Your task to perform on an android device: add a label to a message in the gmail app Image 0: 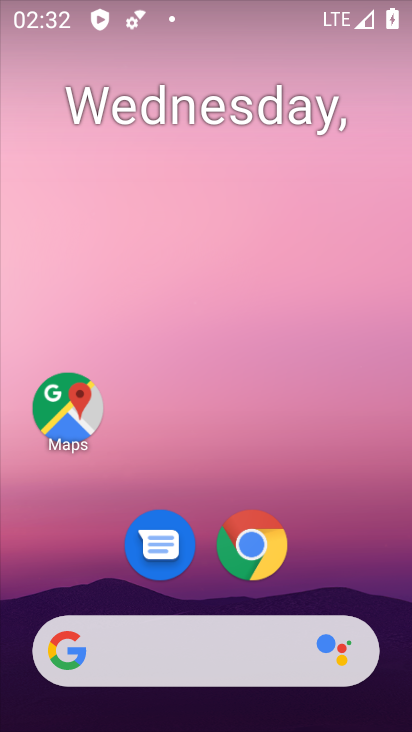
Step 0: press home button
Your task to perform on an android device: add a label to a message in the gmail app Image 1: 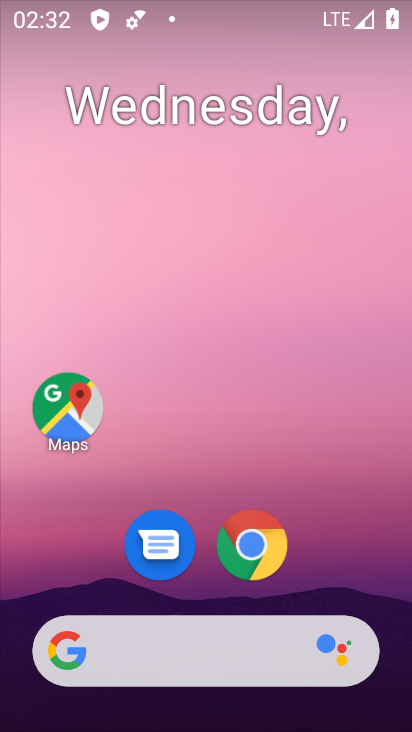
Step 1: drag from (198, 586) to (224, 199)
Your task to perform on an android device: add a label to a message in the gmail app Image 2: 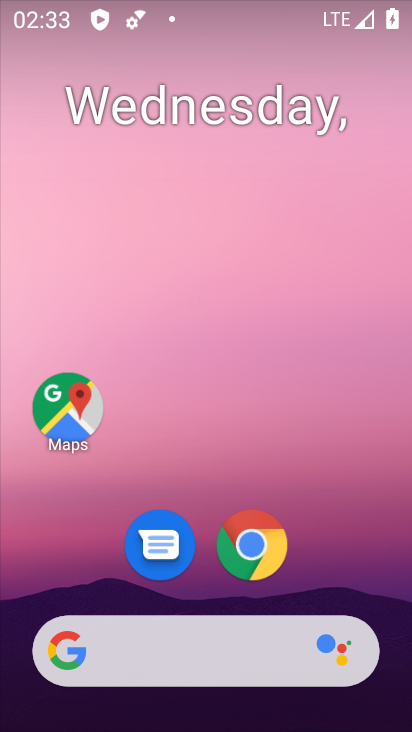
Step 2: drag from (190, 588) to (16, 384)
Your task to perform on an android device: add a label to a message in the gmail app Image 3: 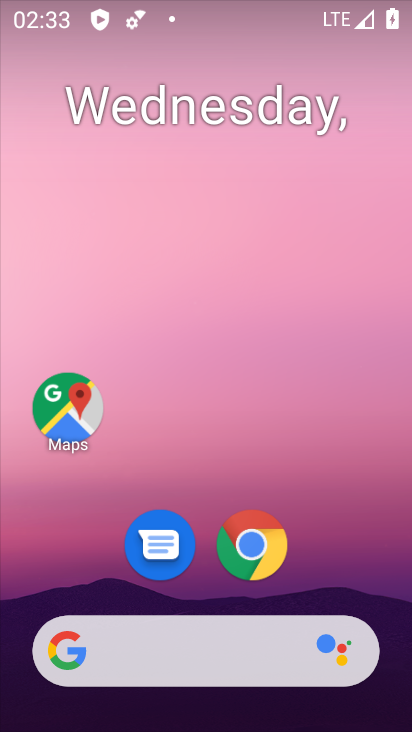
Step 3: click (325, 541)
Your task to perform on an android device: add a label to a message in the gmail app Image 4: 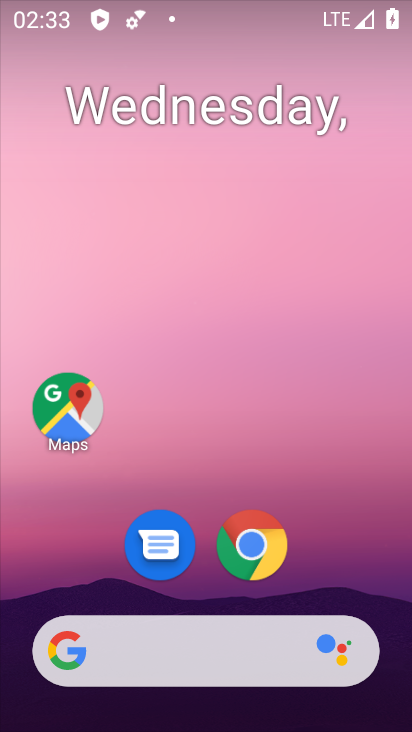
Step 4: drag from (319, 569) to (305, 123)
Your task to perform on an android device: add a label to a message in the gmail app Image 5: 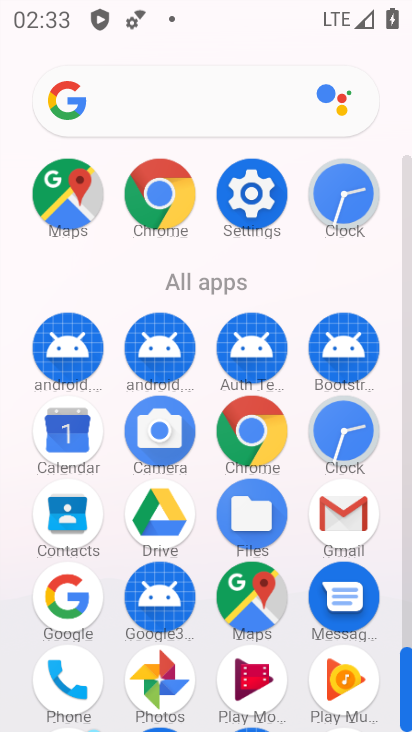
Step 5: click (338, 527)
Your task to perform on an android device: add a label to a message in the gmail app Image 6: 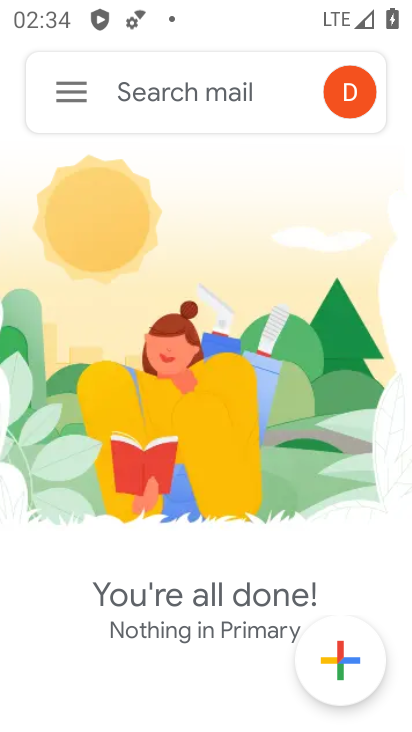
Step 6: click (69, 88)
Your task to perform on an android device: add a label to a message in the gmail app Image 7: 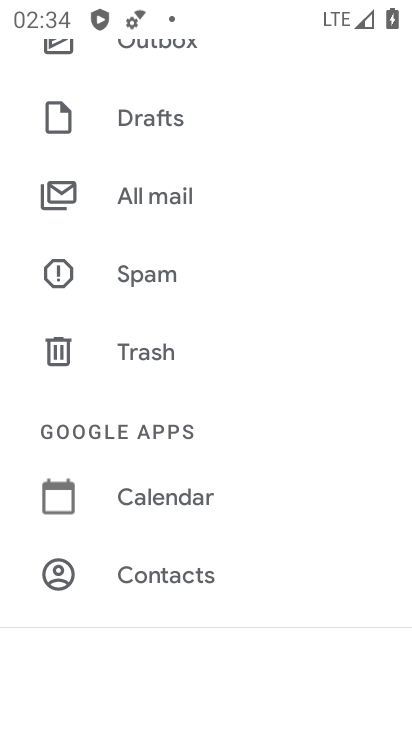
Step 7: click (165, 193)
Your task to perform on an android device: add a label to a message in the gmail app Image 8: 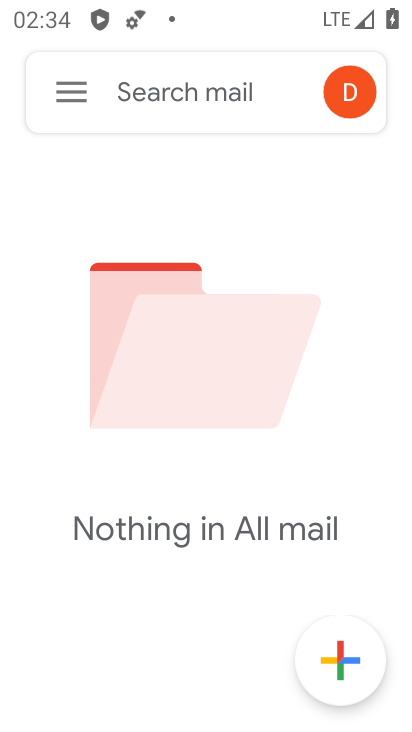
Step 8: task complete